Your task to perform on an android device: delete the emails in spam in the gmail app Image 0: 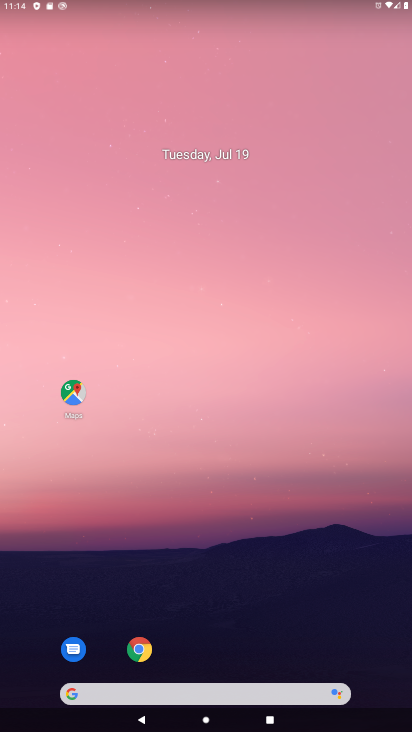
Step 0: drag from (162, 665) to (222, 9)
Your task to perform on an android device: delete the emails in spam in the gmail app Image 1: 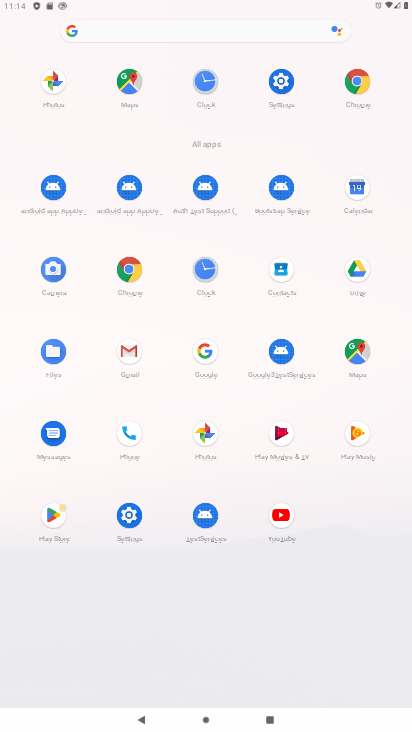
Step 1: click (121, 349)
Your task to perform on an android device: delete the emails in spam in the gmail app Image 2: 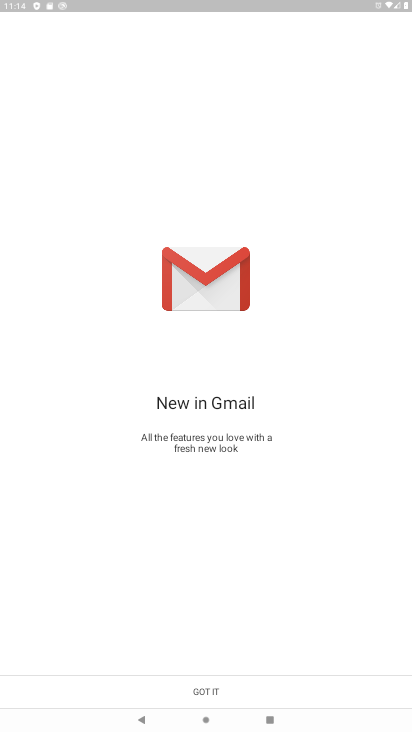
Step 2: click (245, 686)
Your task to perform on an android device: delete the emails in spam in the gmail app Image 3: 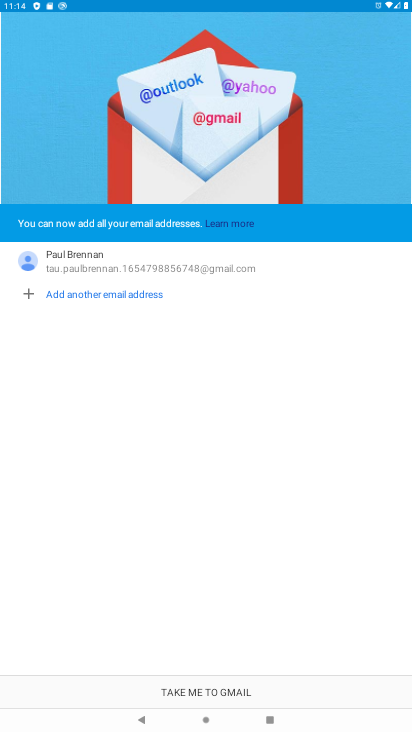
Step 3: click (239, 692)
Your task to perform on an android device: delete the emails in spam in the gmail app Image 4: 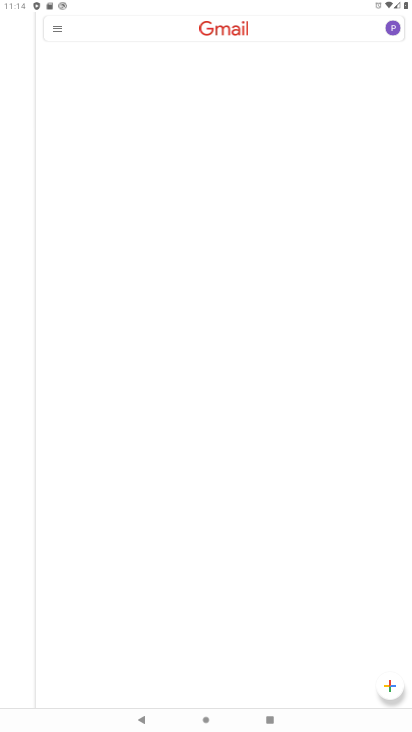
Step 4: click (239, 692)
Your task to perform on an android device: delete the emails in spam in the gmail app Image 5: 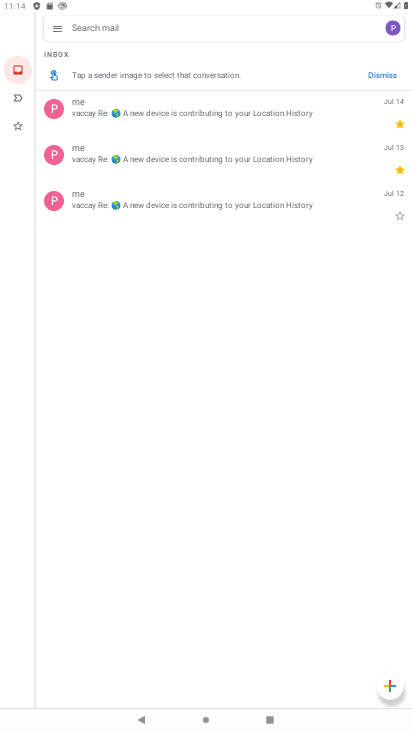
Step 5: click (184, 571)
Your task to perform on an android device: delete the emails in spam in the gmail app Image 6: 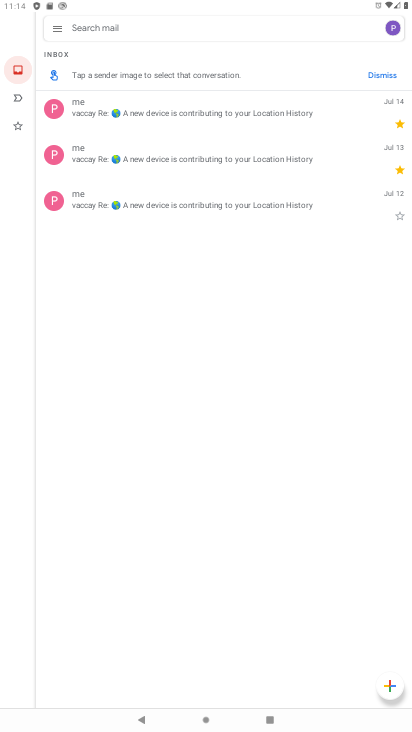
Step 6: click (54, 24)
Your task to perform on an android device: delete the emails in spam in the gmail app Image 7: 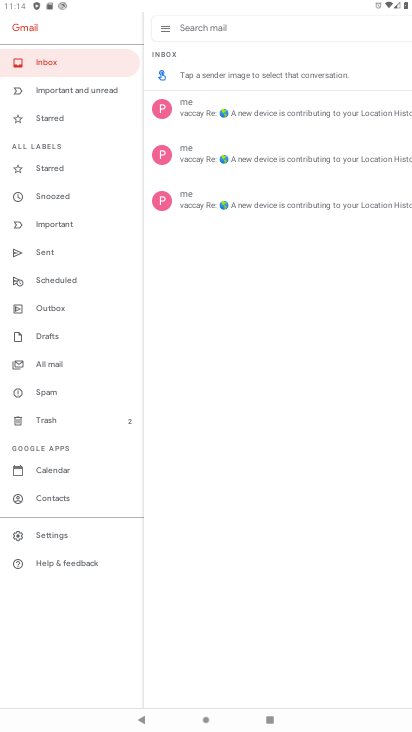
Step 7: click (59, 392)
Your task to perform on an android device: delete the emails in spam in the gmail app Image 8: 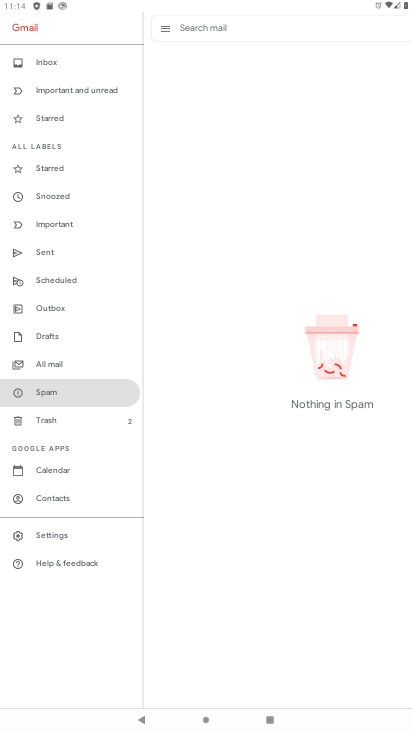
Step 8: task complete